Your task to perform on an android device: Go to battery settings Image 0: 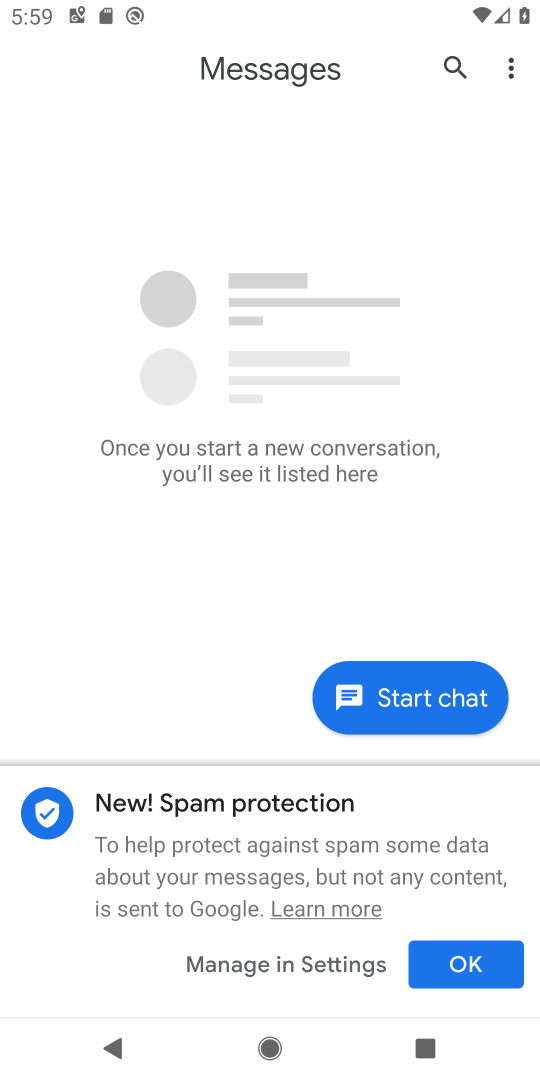
Step 0: press home button
Your task to perform on an android device: Go to battery settings Image 1: 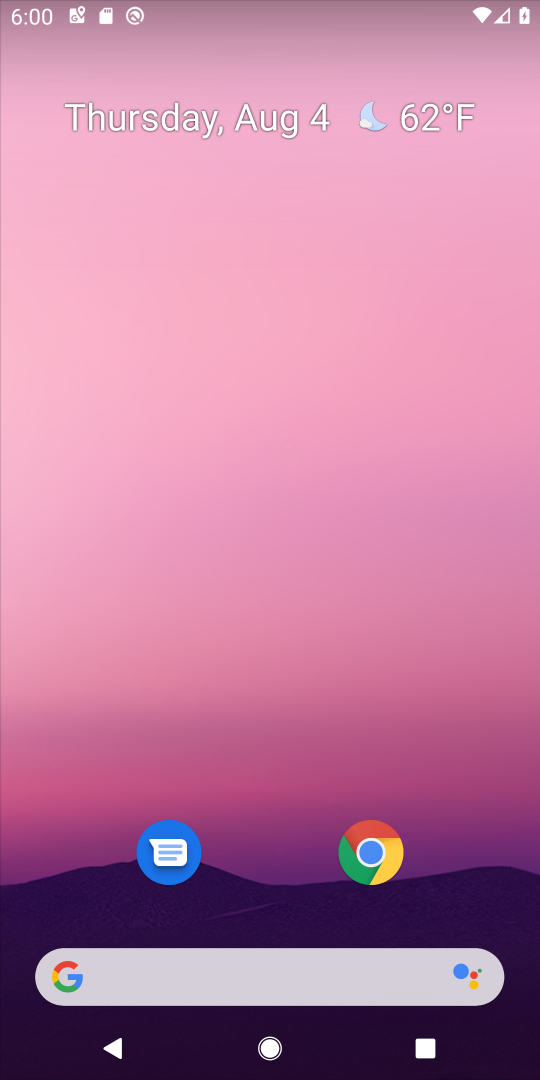
Step 1: drag from (285, 929) to (278, 92)
Your task to perform on an android device: Go to battery settings Image 2: 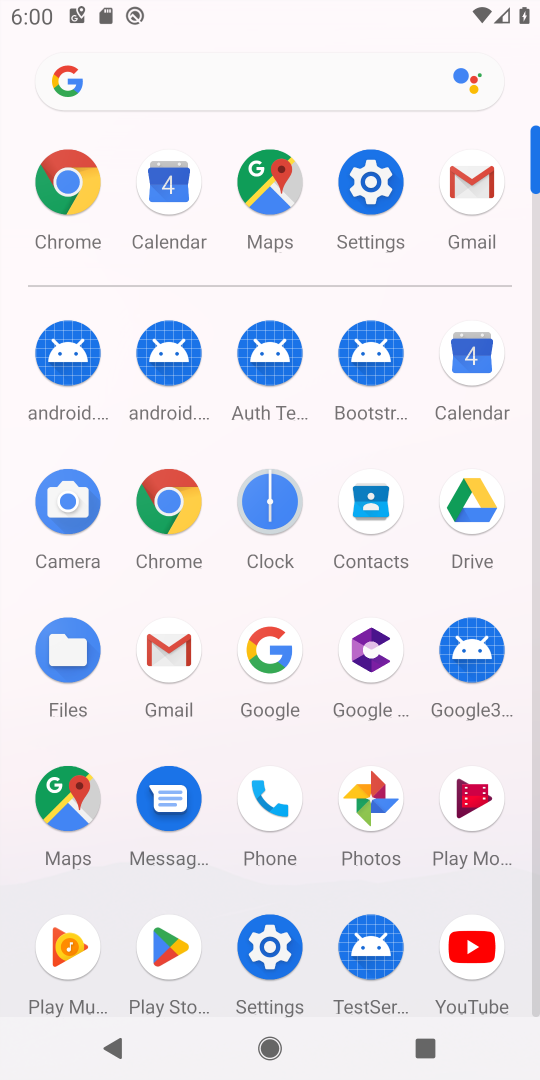
Step 2: click (372, 176)
Your task to perform on an android device: Go to battery settings Image 3: 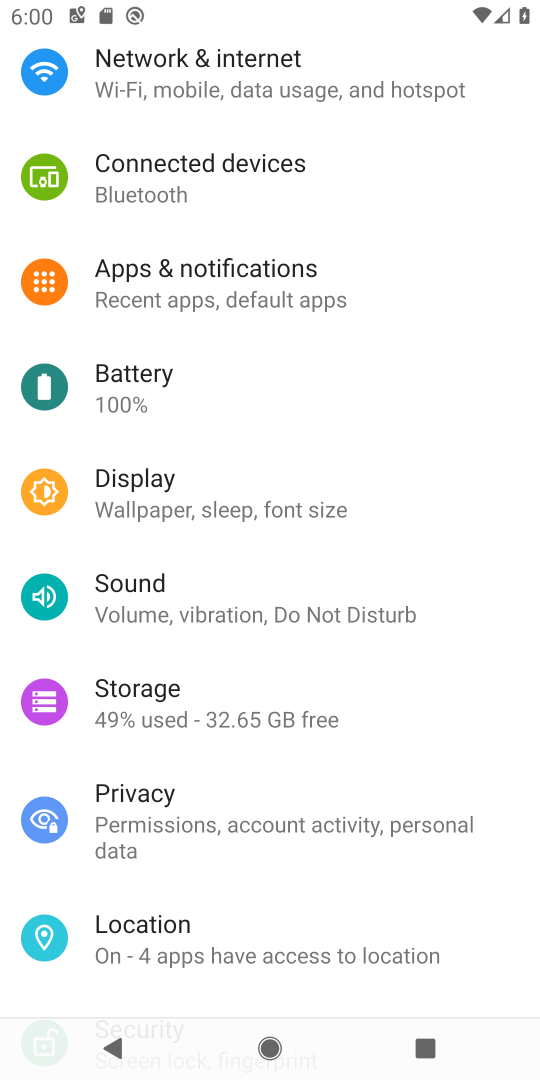
Step 3: click (114, 390)
Your task to perform on an android device: Go to battery settings Image 4: 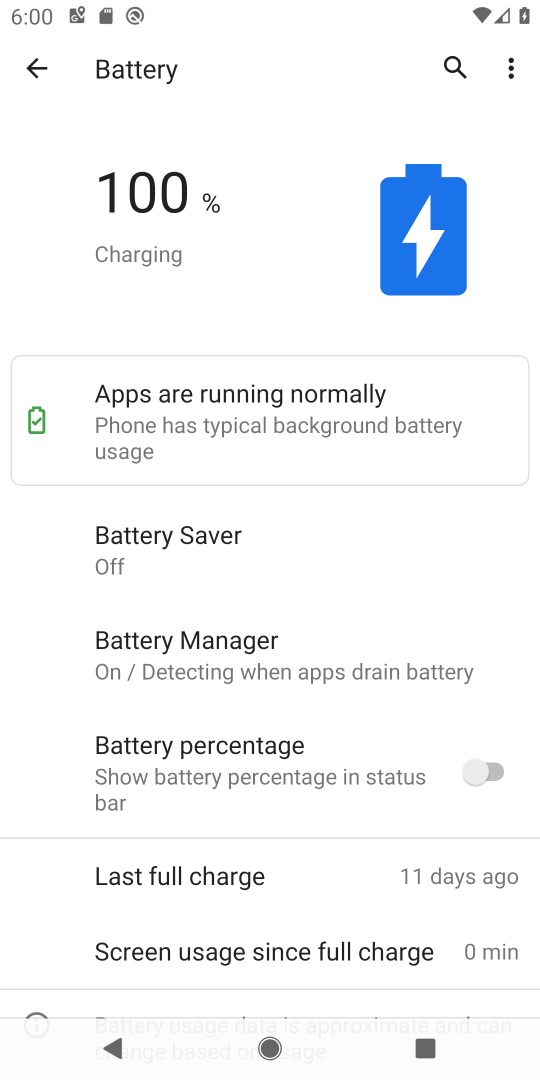
Step 4: task complete